Your task to perform on an android device: Go to privacy settings Image 0: 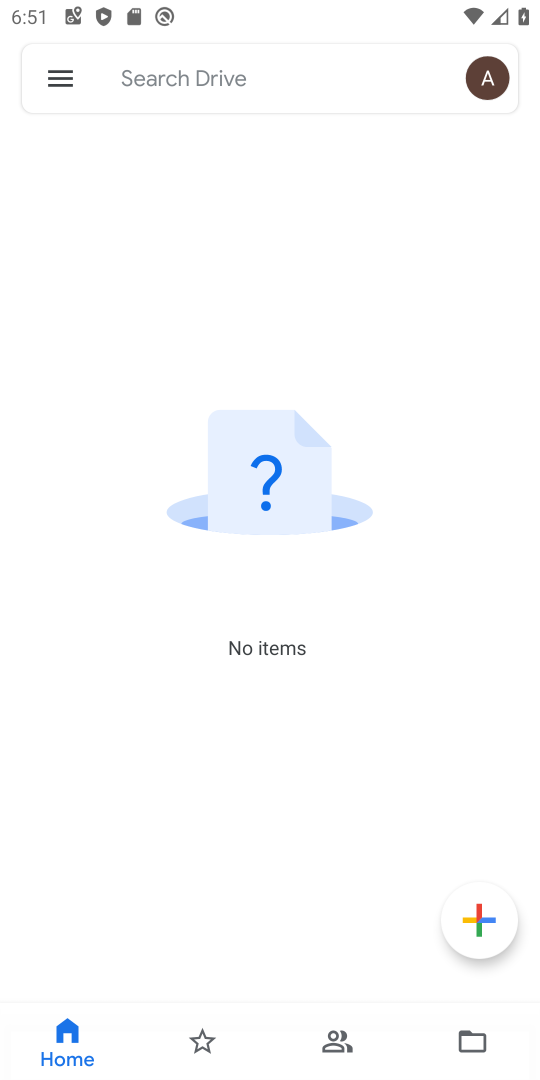
Step 0: press home button
Your task to perform on an android device: Go to privacy settings Image 1: 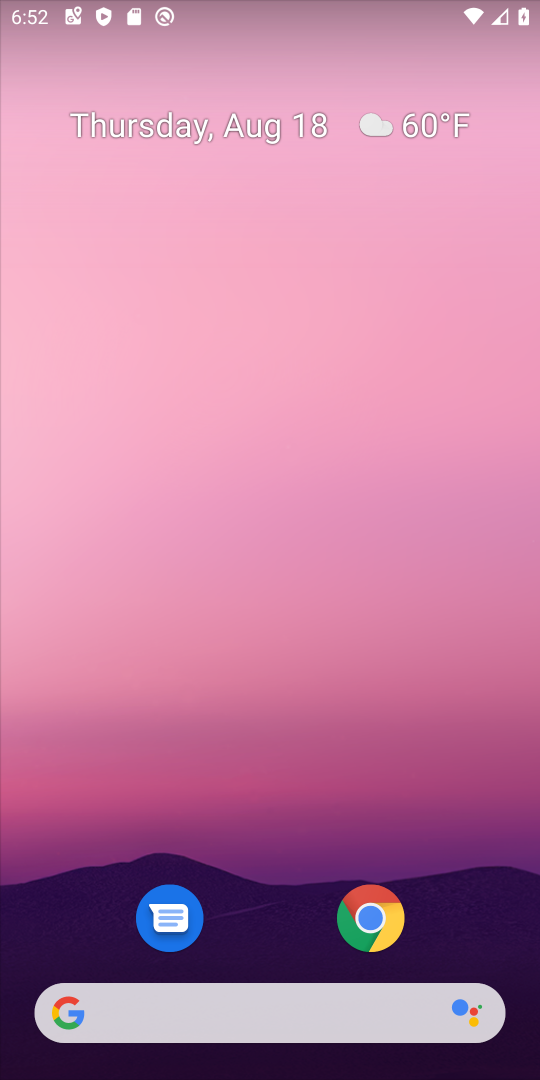
Step 1: drag from (282, 935) to (318, 212)
Your task to perform on an android device: Go to privacy settings Image 2: 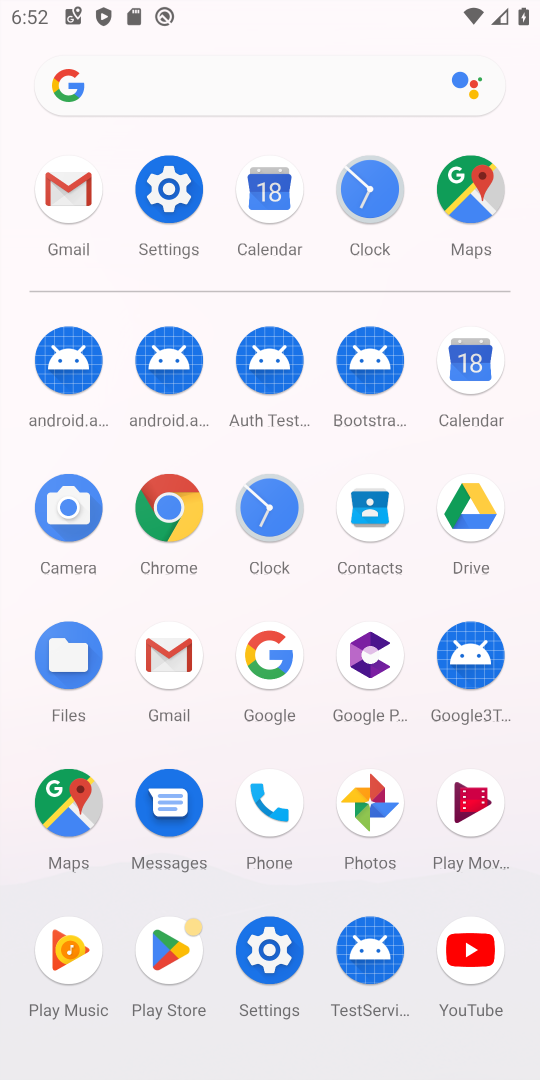
Step 2: click (168, 188)
Your task to perform on an android device: Go to privacy settings Image 3: 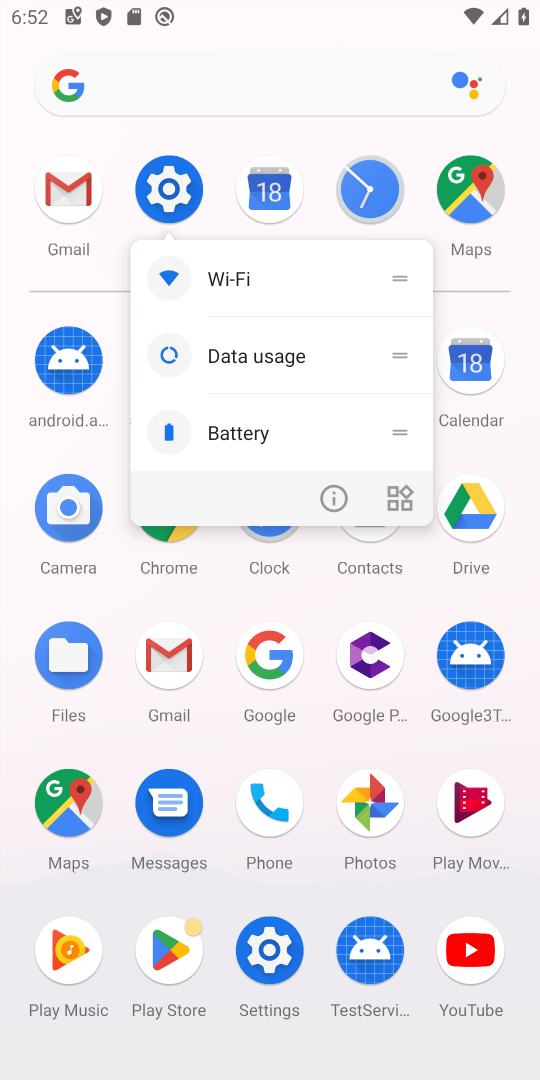
Step 3: click (180, 199)
Your task to perform on an android device: Go to privacy settings Image 4: 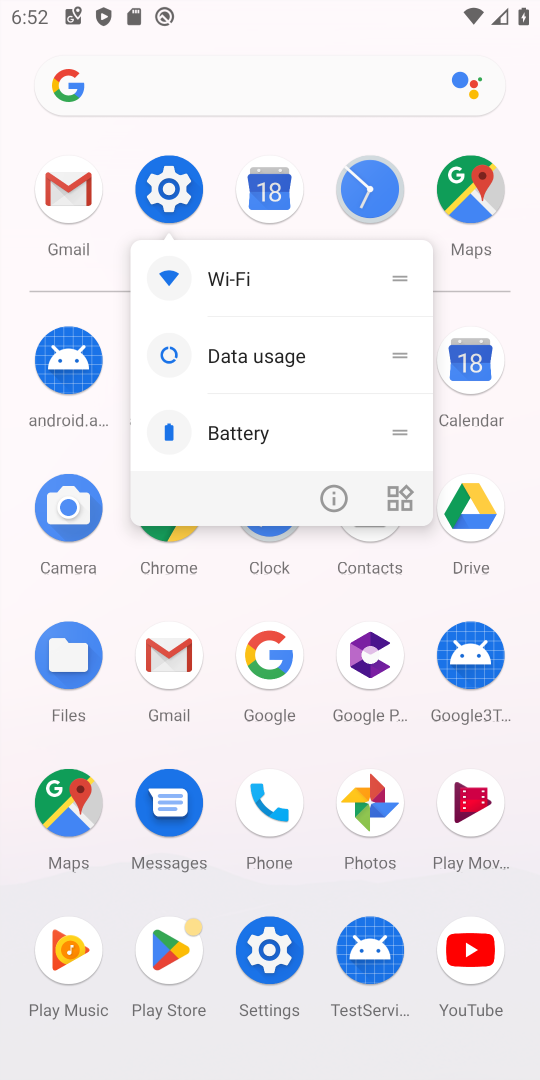
Step 4: click (180, 199)
Your task to perform on an android device: Go to privacy settings Image 5: 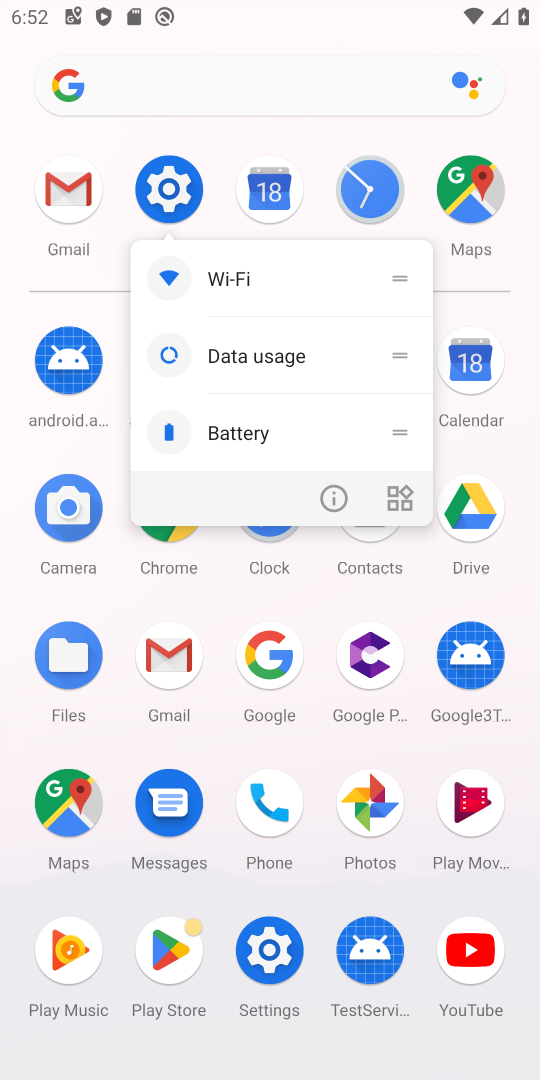
Step 5: click (178, 181)
Your task to perform on an android device: Go to privacy settings Image 6: 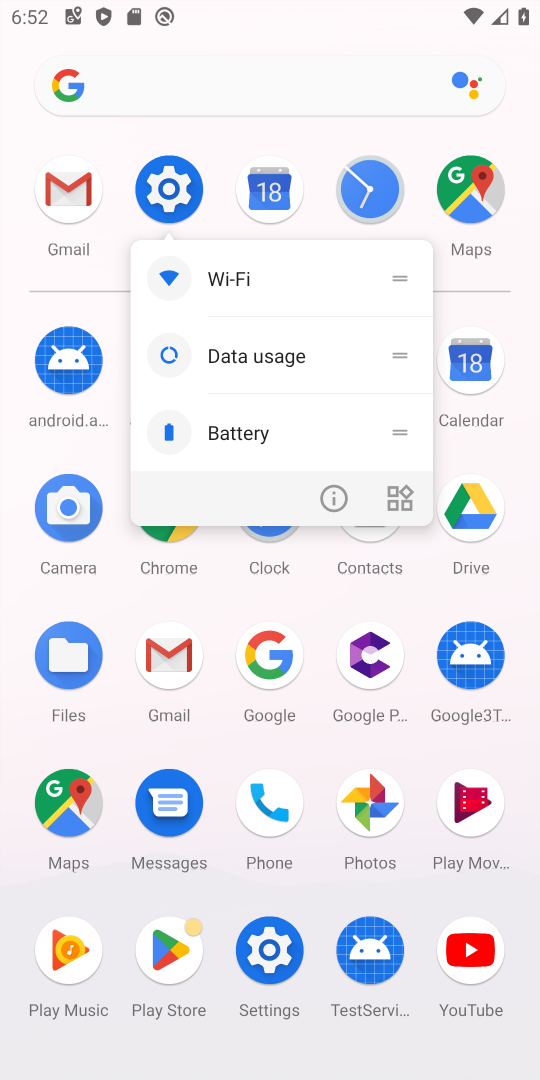
Step 6: click (157, 194)
Your task to perform on an android device: Go to privacy settings Image 7: 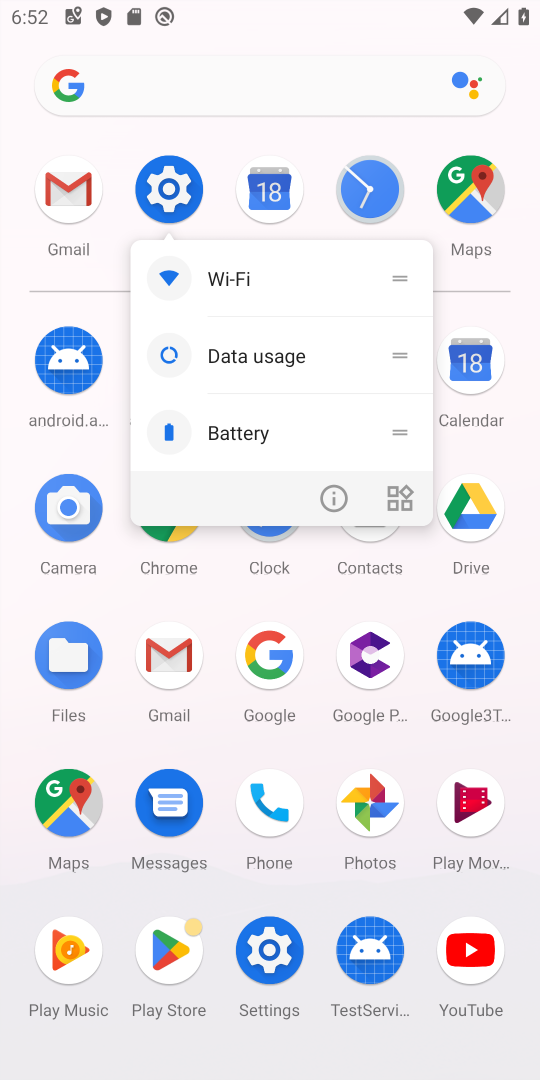
Step 7: click (165, 168)
Your task to perform on an android device: Go to privacy settings Image 8: 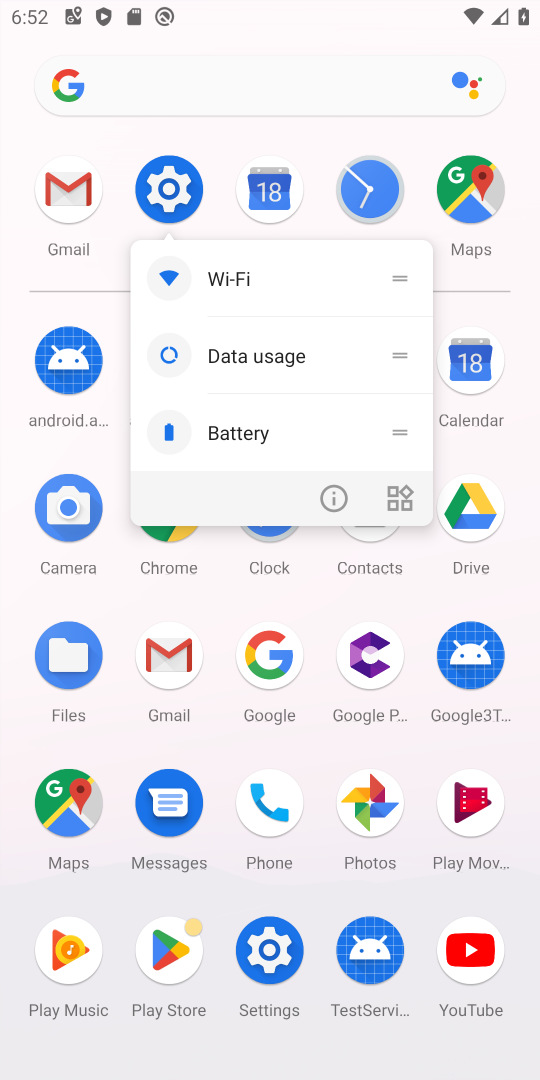
Step 8: click (164, 193)
Your task to perform on an android device: Go to privacy settings Image 9: 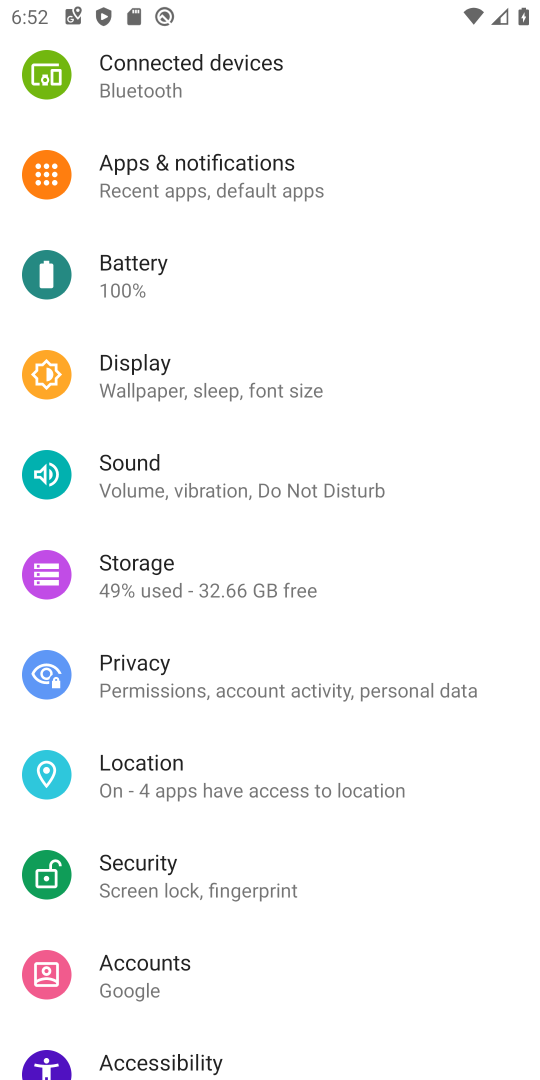
Step 9: click (131, 685)
Your task to perform on an android device: Go to privacy settings Image 10: 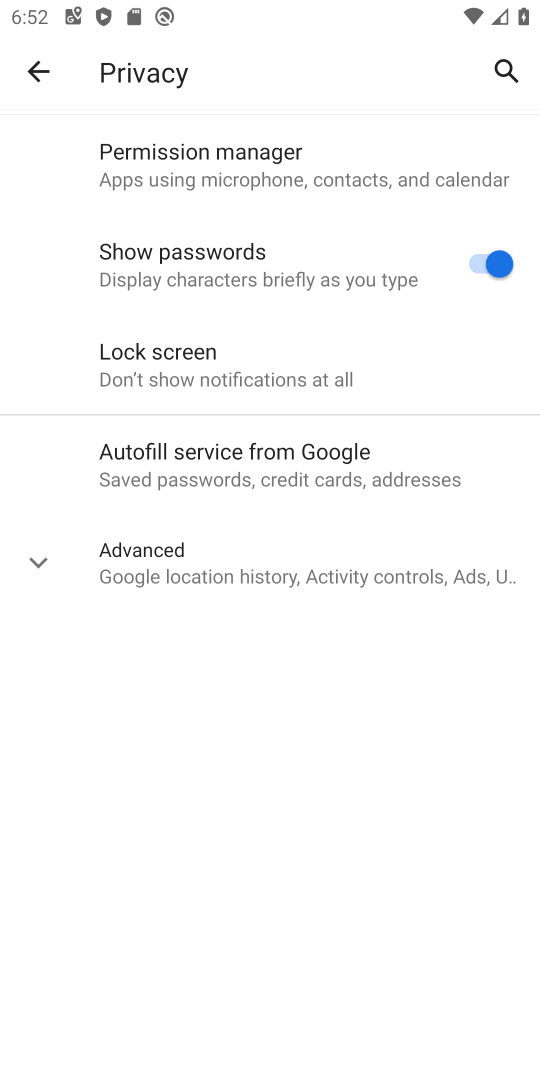
Step 10: task complete